Your task to perform on an android device: snooze an email in the gmail app Image 0: 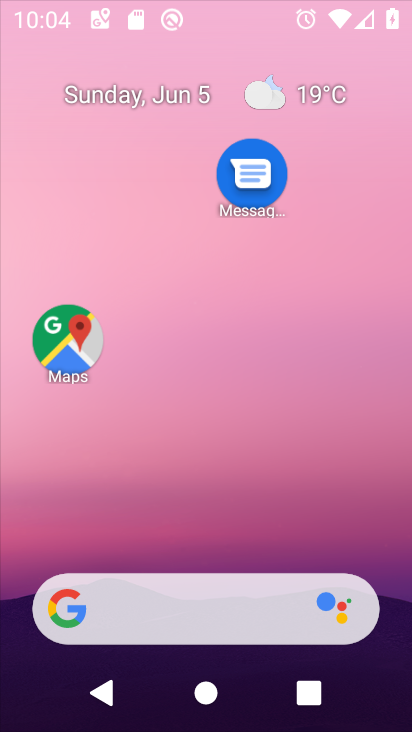
Step 0: press home button
Your task to perform on an android device: snooze an email in the gmail app Image 1: 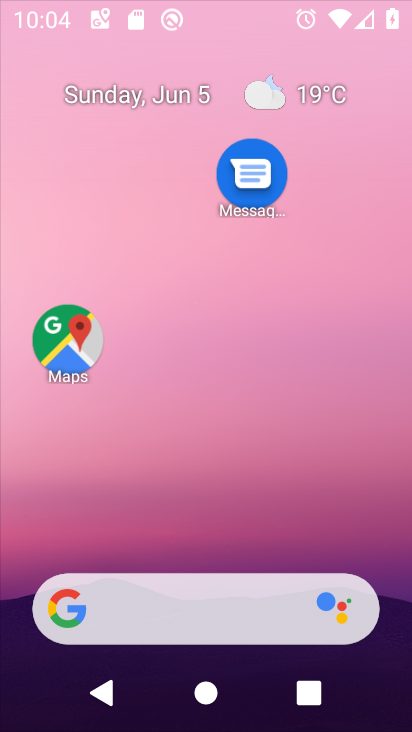
Step 1: click (26, 294)
Your task to perform on an android device: snooze an email in the gmail app Image 2: 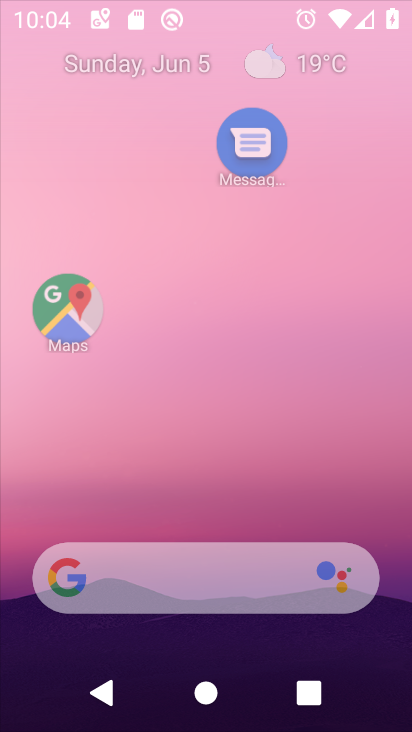
Step 2: drag from (221, 559) to (221, 81)
Your task to perform on an android device: snooze an email in the gmail app Image 3: 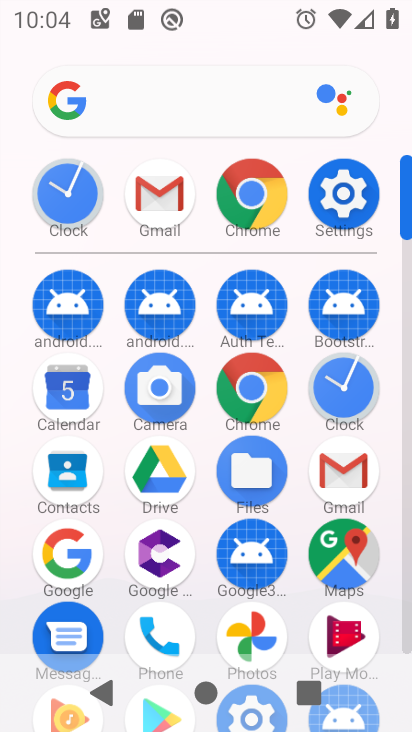
Step 3: click (328, 461)
Your task to perform on an android device: snooze an email in the gmail app Image 4: 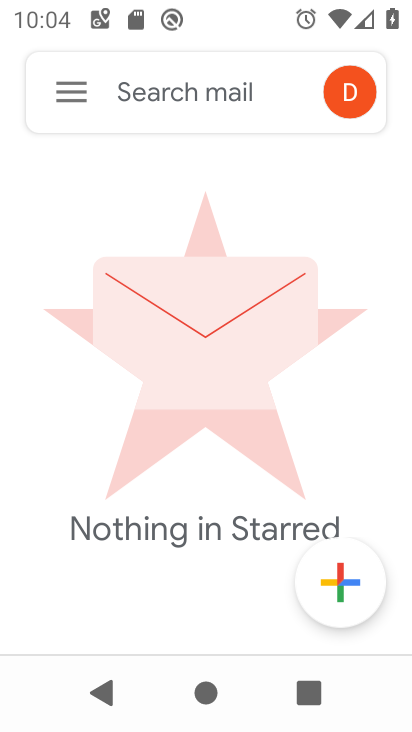
Step 4: click (63, 105)
Your task to perform on an android device: snooze an email in the gmail app Image 5: 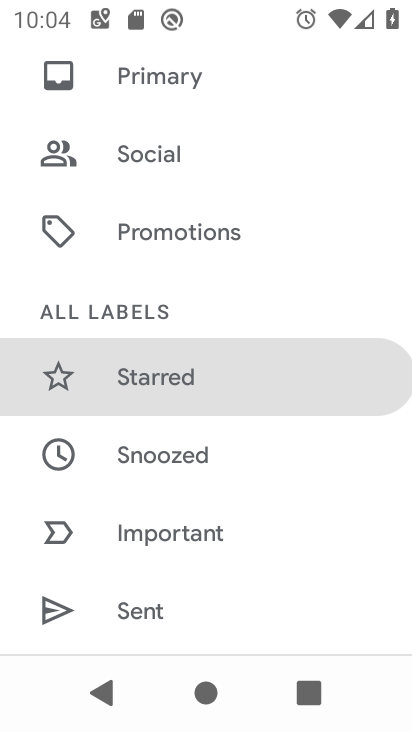
Step 5: drag from (203, 169) to (348, 599)
Your task to perform on an android device: snooze an email in the gmail app Image 6: 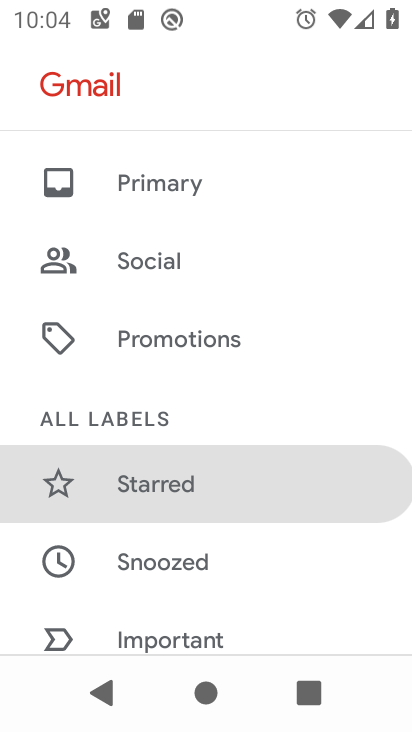
Step 6: click (158, 580)
Your task to perform on an android device: snooze an email in the gmail app Image 7: 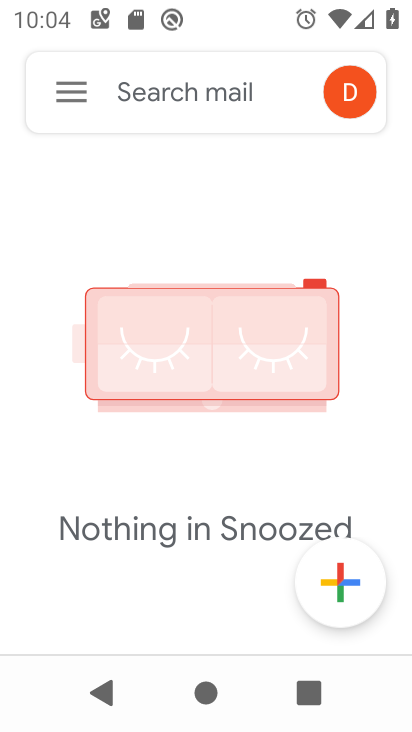
Step 7: task complete